Your task to perform on an android device: Search for good BBQ restaurants Image 0: 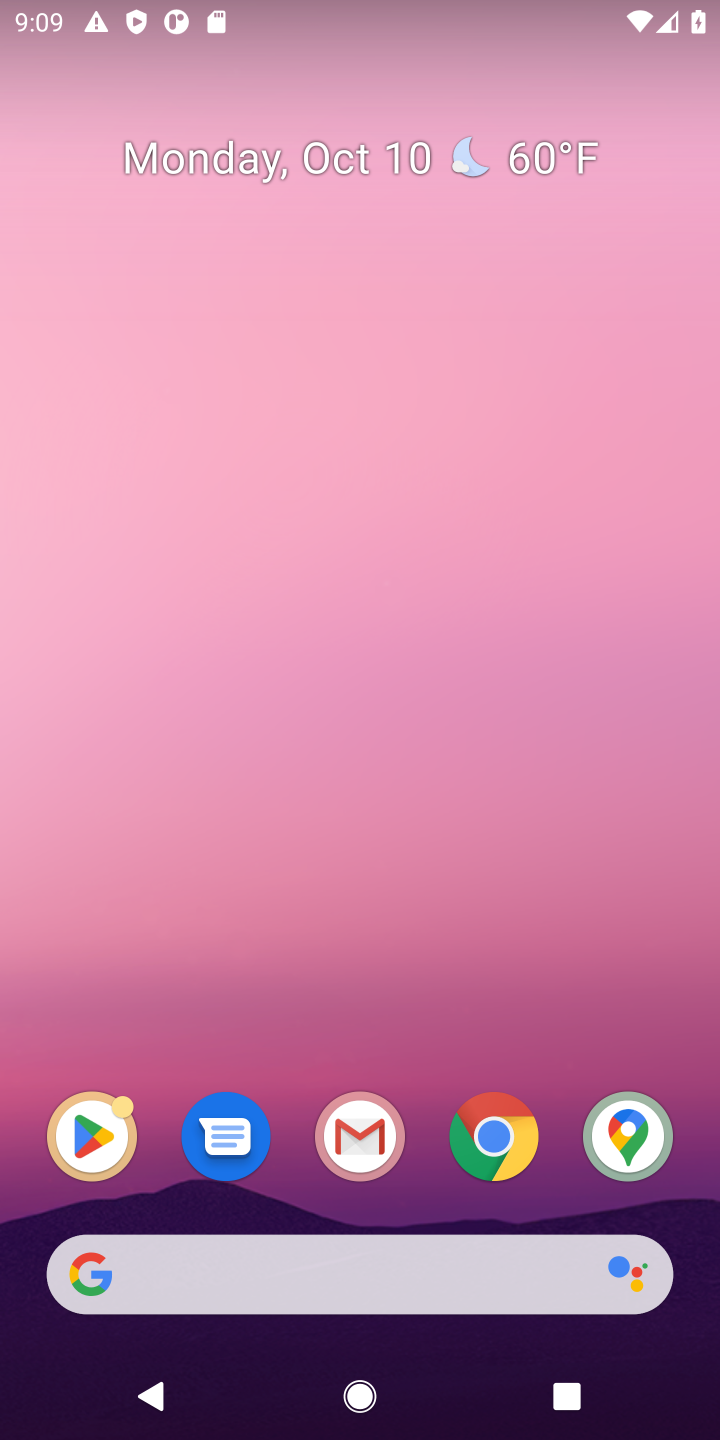
Step 0: click (319, 1280)
Your task to perform on an android device: Search for good BBQ restaurants Image 1: 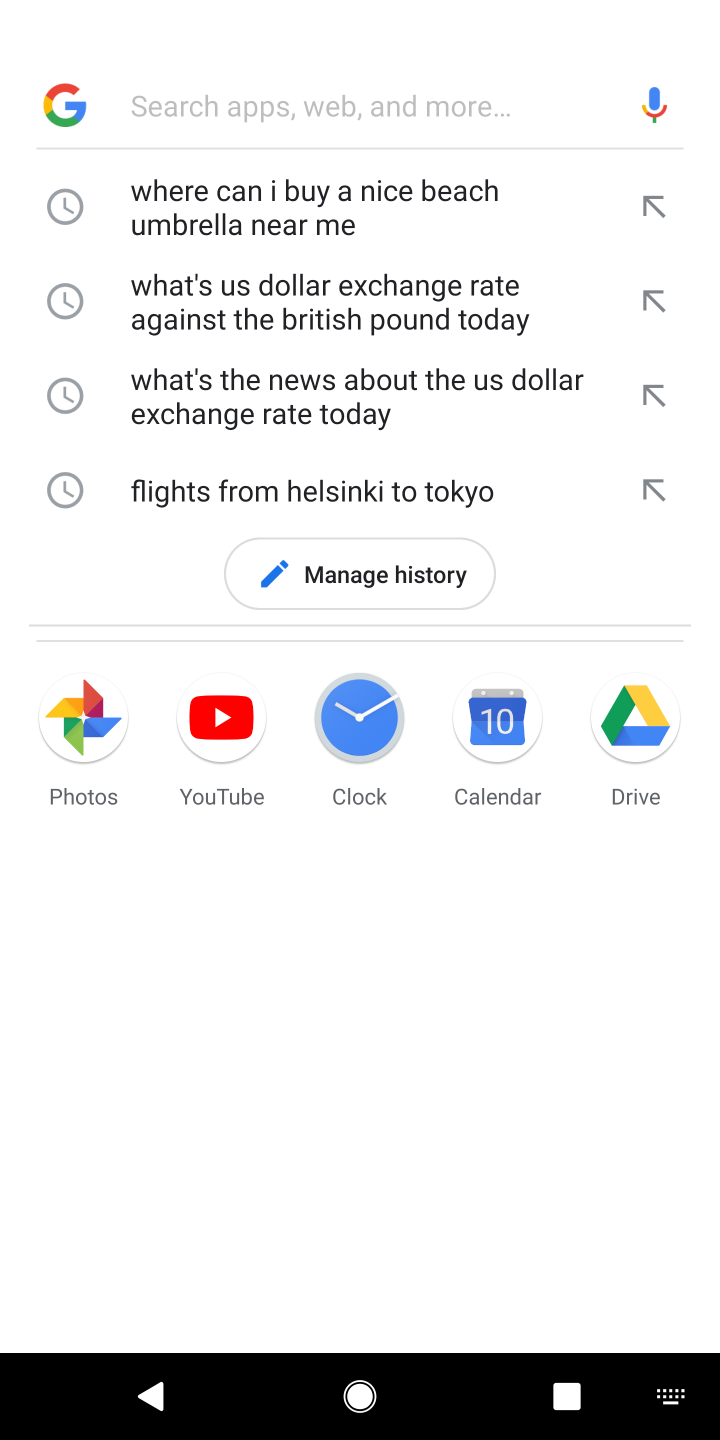
Step 1: type "good BBQ restaurants"
Your task to perform on an android device: Search for good BBQ restaurants Image 2: 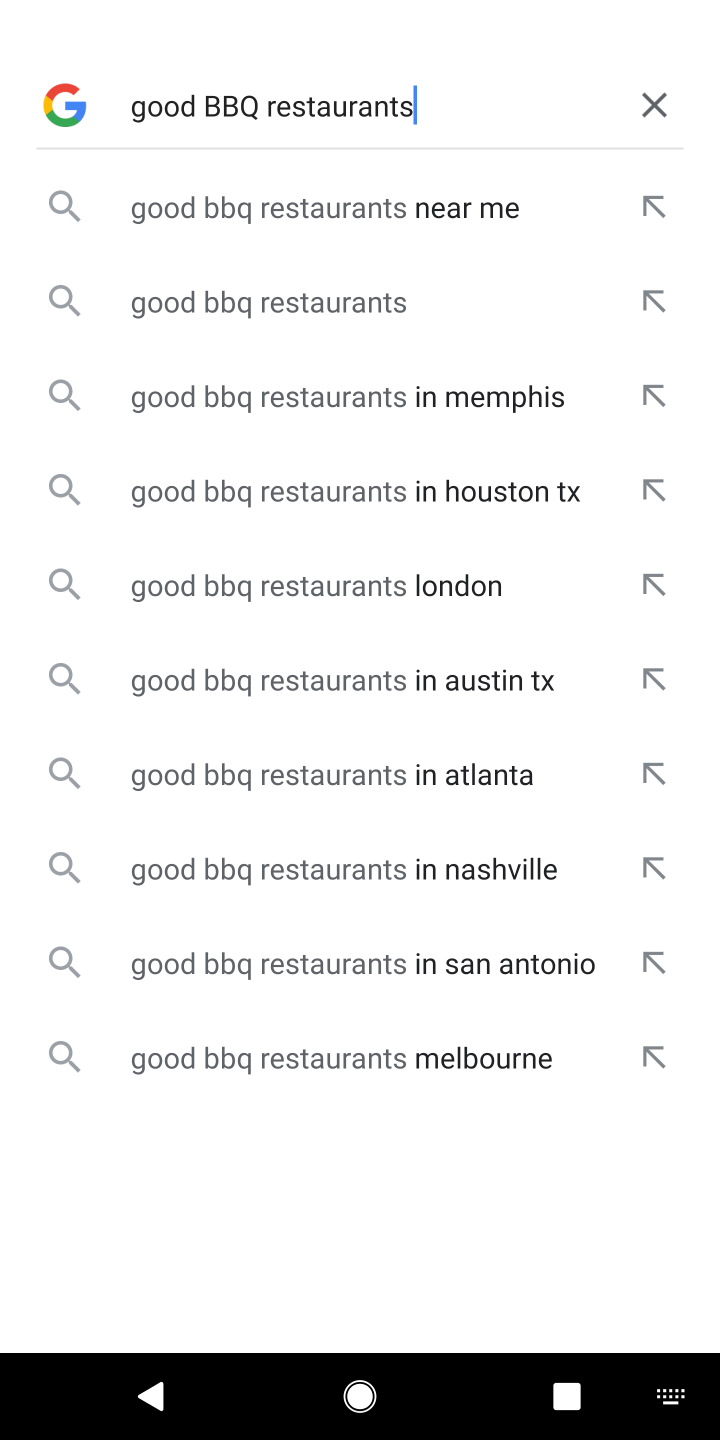
Step 2: click (282, 296)
Your task to perform on an android device: Search for good BBQ restaurants Image 3: 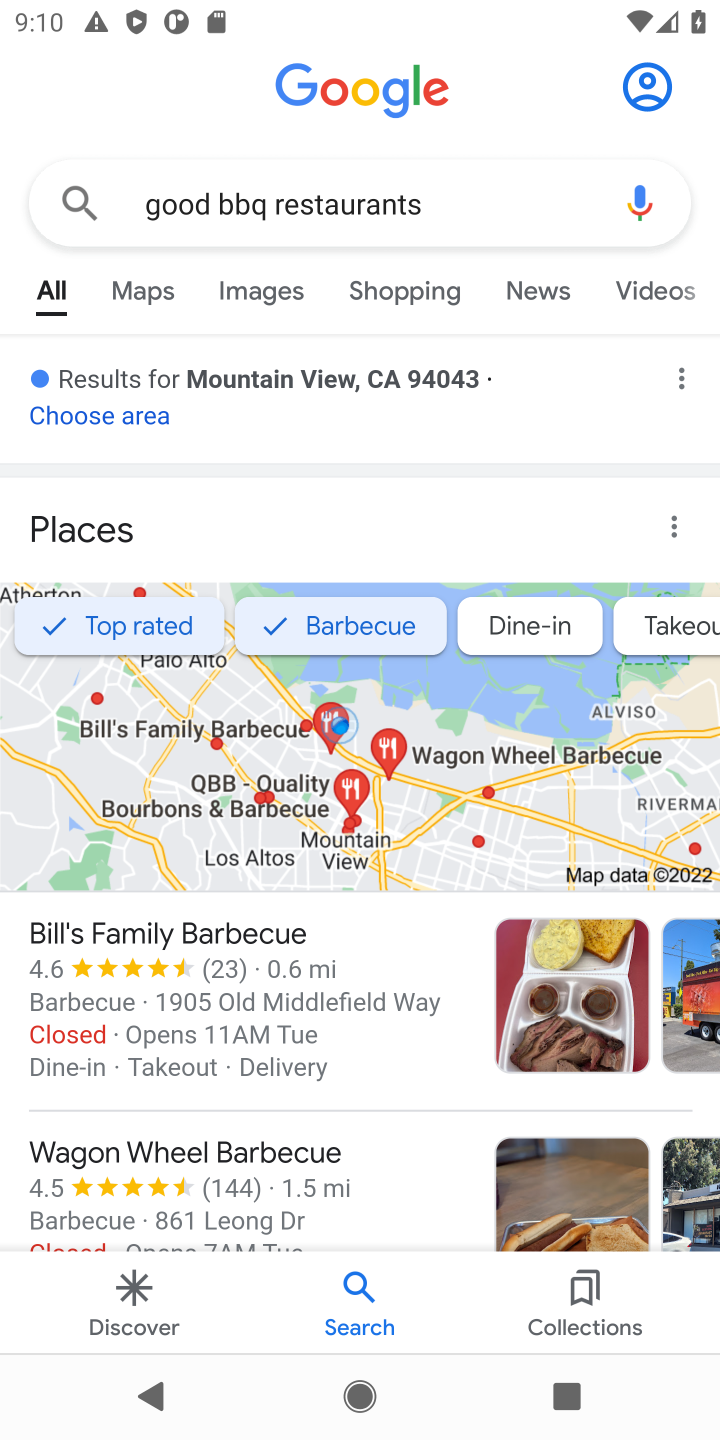
Step 3: task complete